Your task to perform on an android device: open app "The Home Depot" (install if not already installed) Image 0: 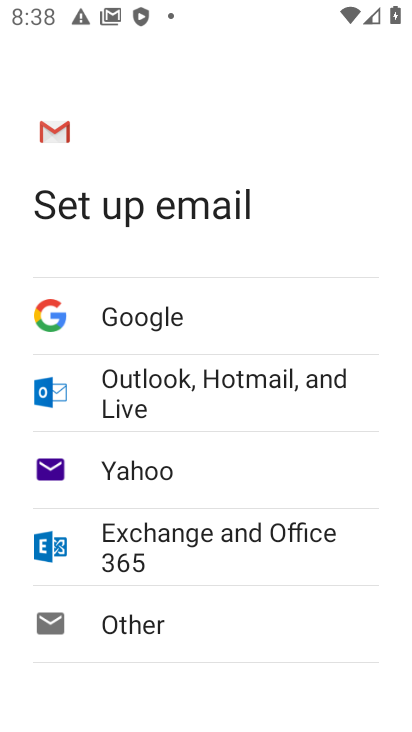
Step 0: press home button
Your task to perform on an android device: open app "The Home Depot" (install if not already installed) Image 1: 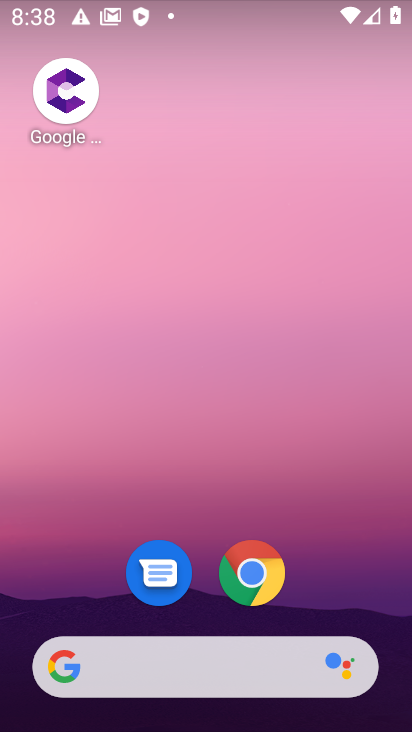
Step 1: drag from (285, 649) to (284, 134)
Your task to perform on an android device: open app "The Home Depot" (install if not already installed) Image 2: 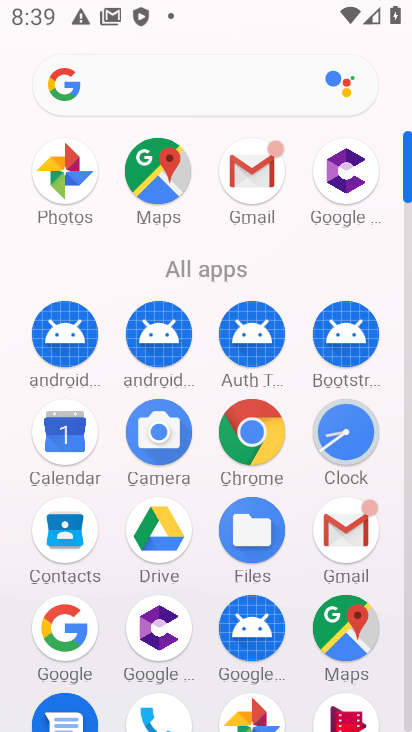
Step 2: drag from (213, 607) to (214, 309)
Your task to perform on an android device: open app "The Home Depot" (install if not already installed) Image 3: 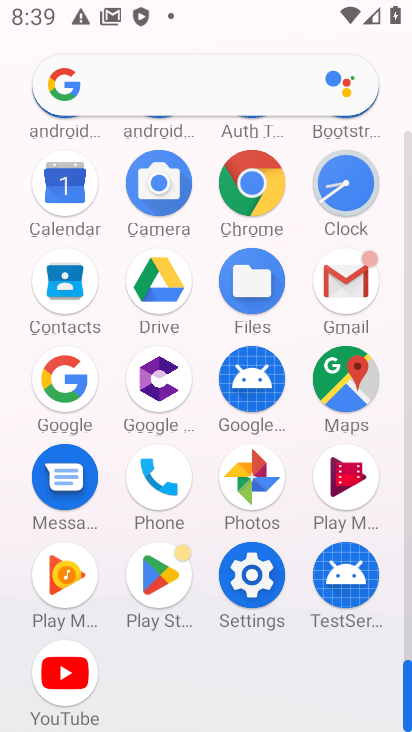
Step 3: click (162, 569)
Your task to perform on an android device: open app "The Home Depot" (install if not already installed) Image 4: 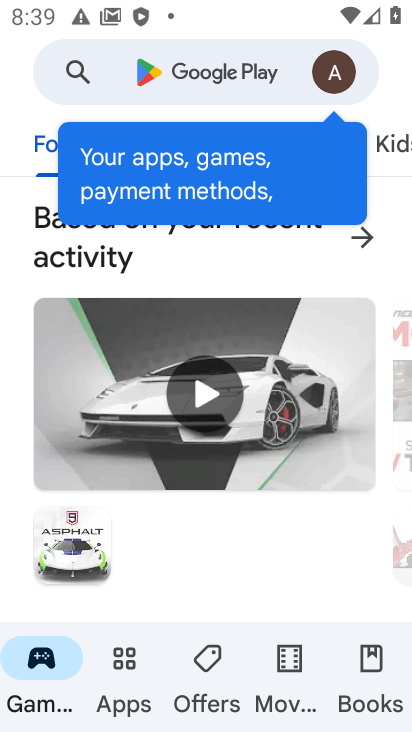
Step 4: click (208, 78)
Your task to perform on an android device: open app "The Home Depot" (install if not already installed) Image 5: 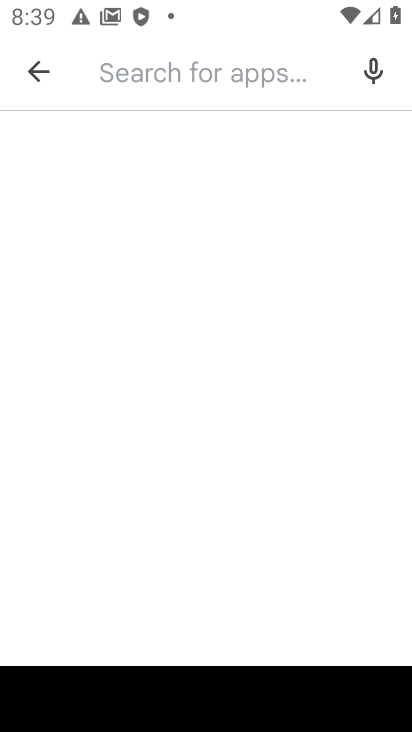
Step 5: type "the home depot"
Your task to perform on an android device: open app "The Home Depot" (install if not already installed) Image 6: 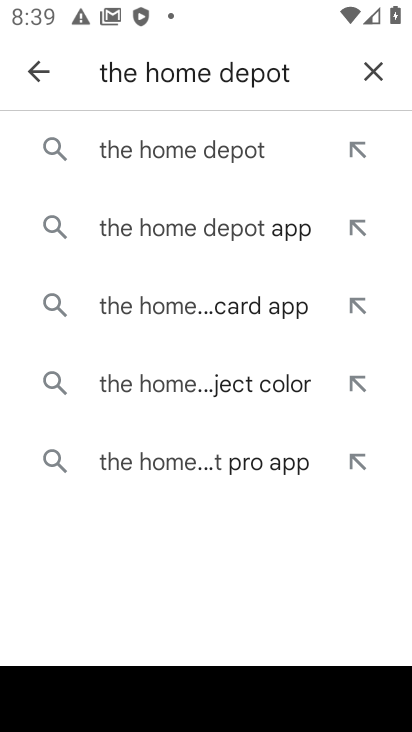
Step 6: click (261, 157)
Your task to perform on an android device: open app "The Home Depot" (install if not already installed) Image 7: 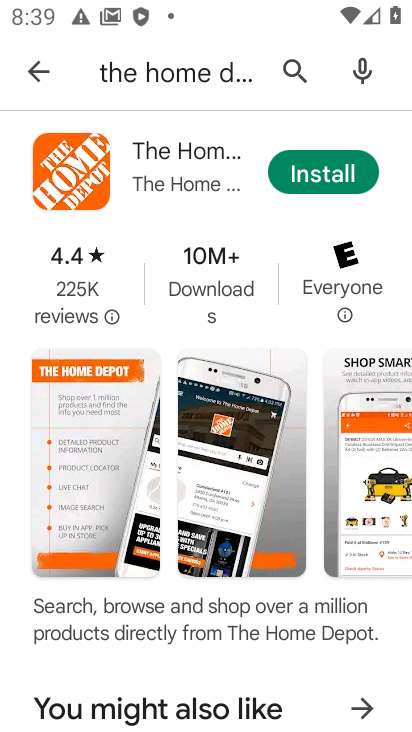
Step 7: click (312, 162)
Your task to perform on an android device: open app "The Home Depot" (install if not already installed) Image 8: 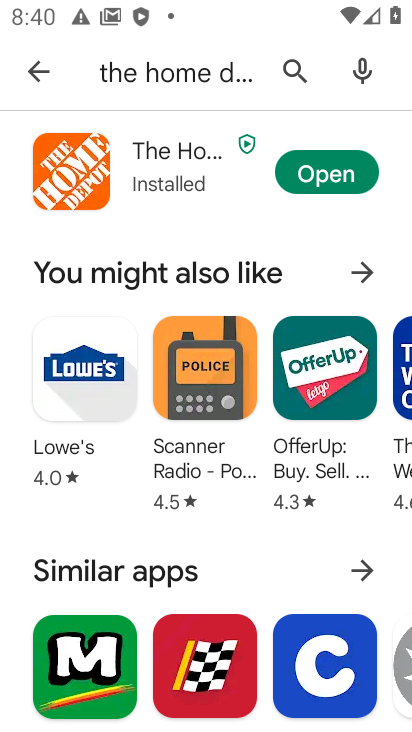
Step 8: click (325, 172)
Your task to perform on an android device: open app "The Home Depot" (install if not already installed) Image 9: 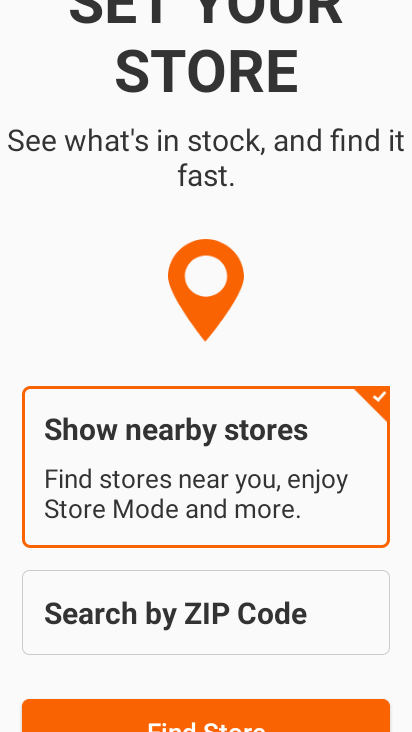
Step 9: task complete